Your task to perform on an android device: Go to location settings Image 0: 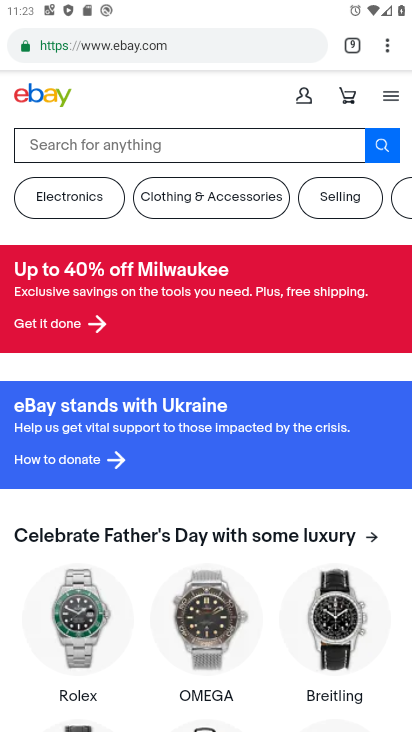
Step 0: press home button
Your task to perform on an android device: Go to location settings Image 1: 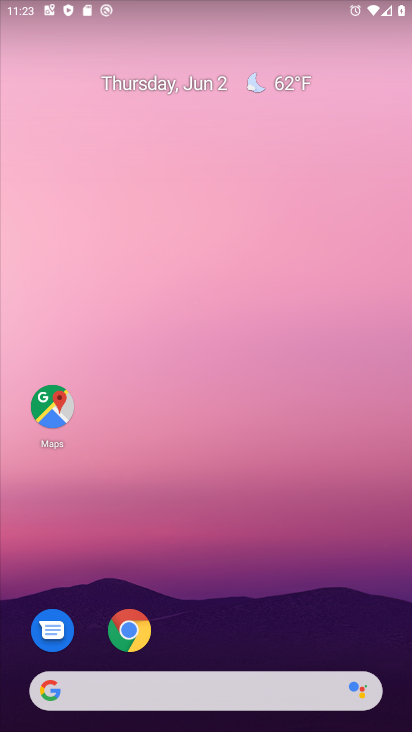
Step 1: drag from (223, 689) to (345, 93)
Your task to perform on an android device: Go to location settings Image 2: 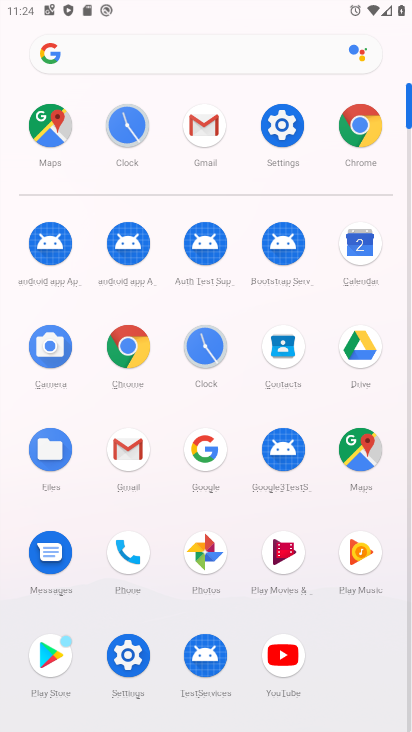
Step 2: click (281, 126)
Your task to perform on an android device: Go to location settings Image 3: 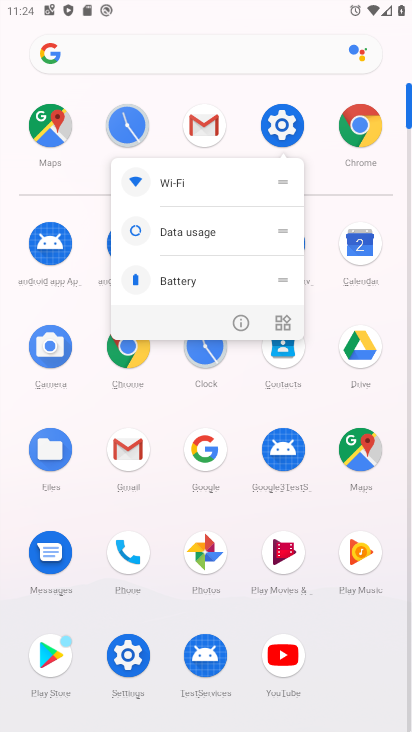
Step 3: click (283, 122)
Your task to perform on an android device: Go to location settings Image 4: 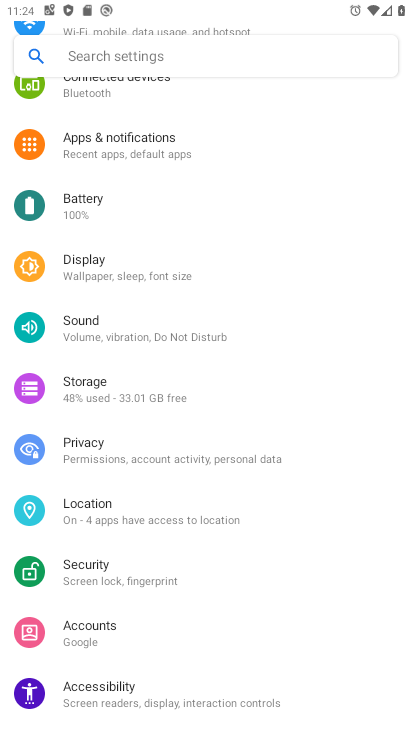
Step 4: click (116, 510)
Your task to perform on an android device: Go to location settings Image 5: 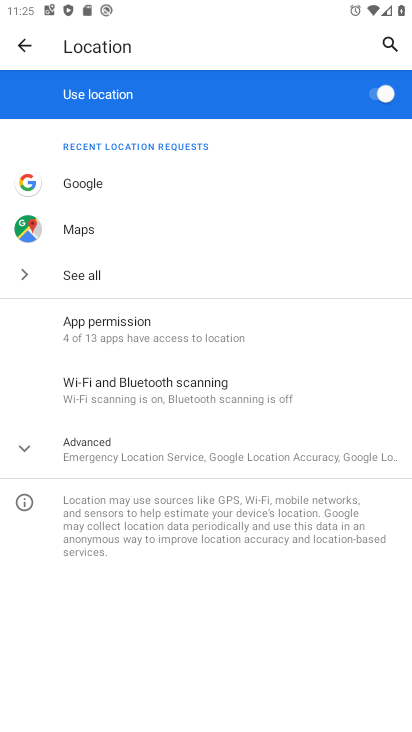
Step 5: task complete